Your task to perform on an android device: Open calendar and show me the third week of next month Image 0: 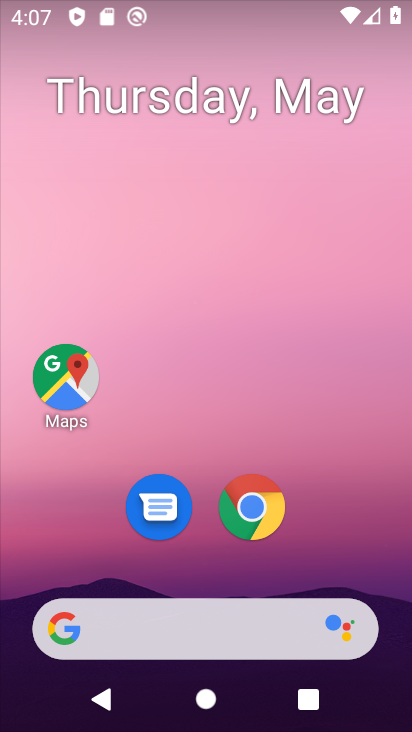
Step 0: drag from (330, 560) to (97, 9)
Your task to perform on an android device: Open calendar and show me the third week of next month Image 1: 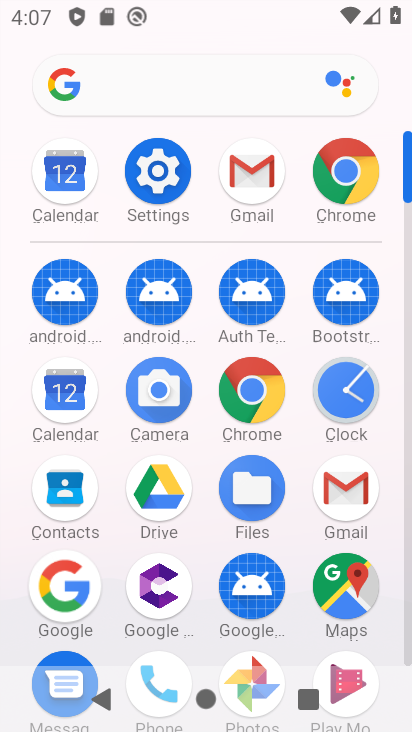
Step 1: click (60, 383)
Your task to perform on an android device: Open calendar and show me the third week of next month Image 2: 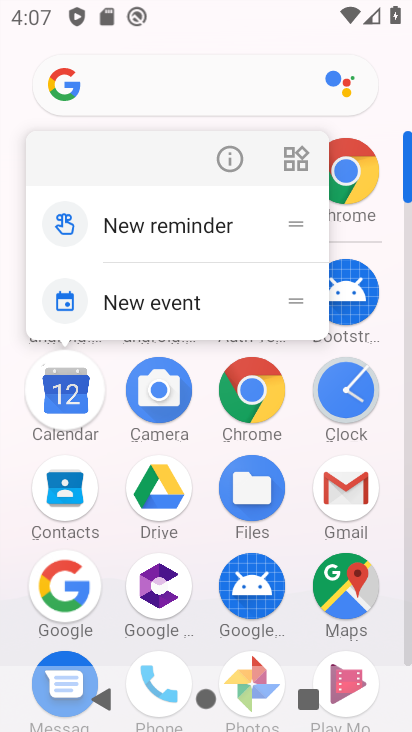
Step 2: click (62, 379)
Your task to perform on an android device: Open calendar and show me the third week of next month Image 3: 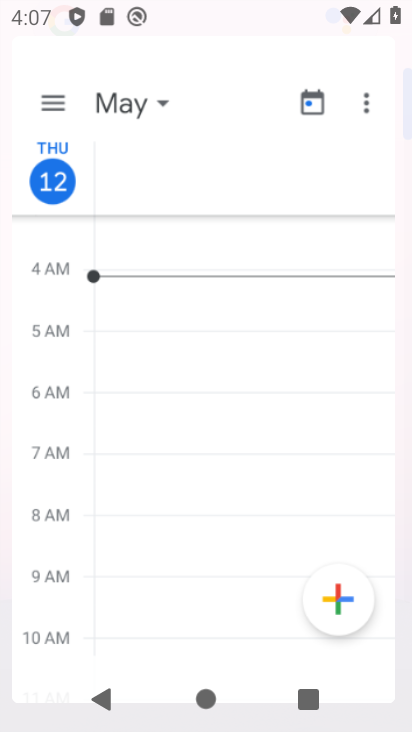
Step 3: click (60, 375)
Your task to perform on an android device: Open calendar and show me the third week of next month Image 4: 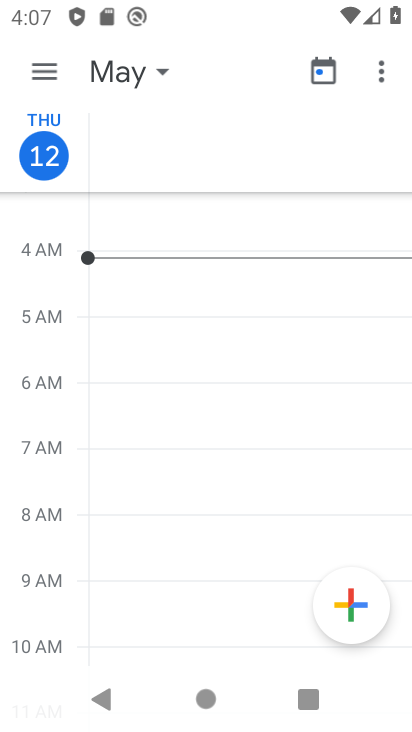
Step 4: click (159, 70)
Your task to perform on an android device: Open calendar and show me the third week of next month Image 5: 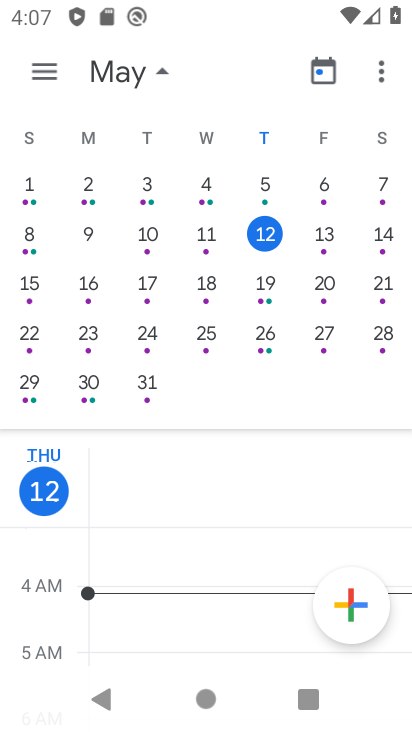
Step 5: drag from (256, 236) to (6, 318)
Your task to perform on an android device: Open calendar and show me the third week of next month Image 6: 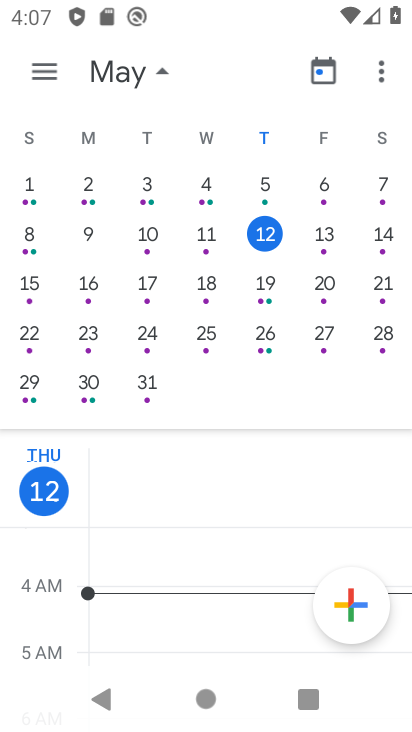
Step 6: drag from (258, 256) to (1, 350)
Your task to perform on an android device: Open calendar and show me the third week of next month Image 7: 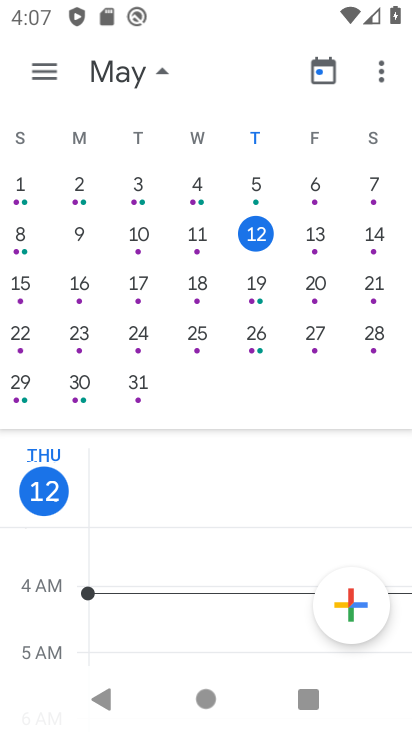
Step 7: drag from (251, 256) to (17, 259)
Your task to perform on an android device: Open calendar and show me the third week of next month Image 8: 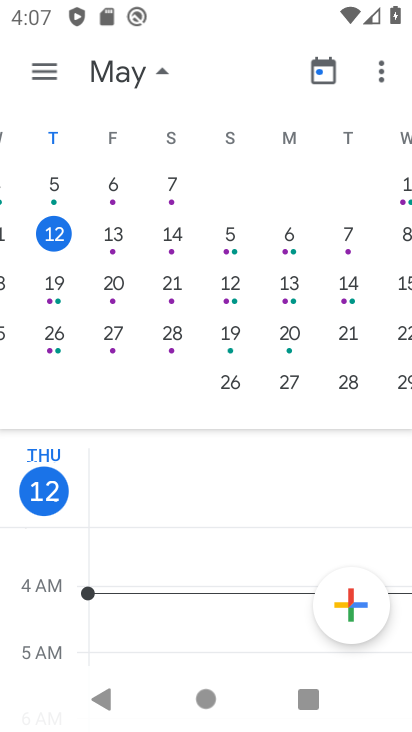
Step 8: drag from (209, 206) to (14, 277)
Your task to perform on an android device: Open calendar and show me the third week of next month Image 9: 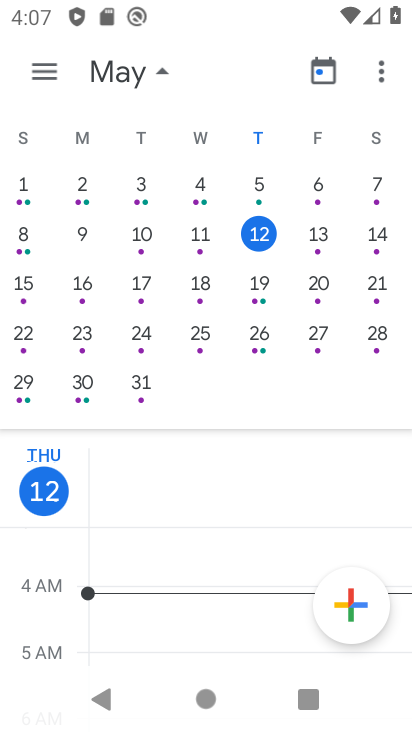
Step 9: drag from (262, 272) to (59, 259)
Your task to perform on an android device: Open calendar and show me the third week of next month Image 10: 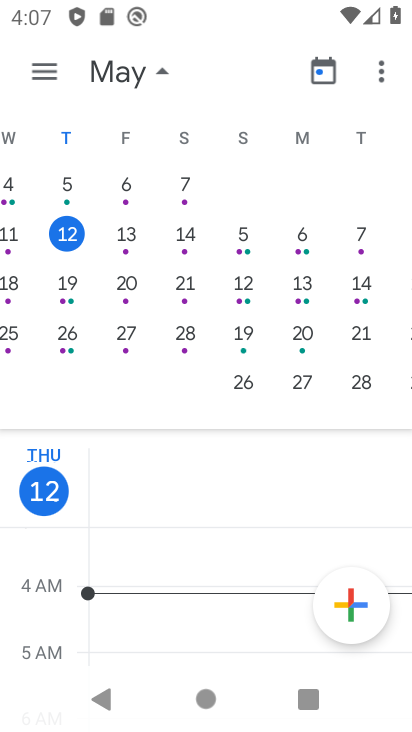
Step 10: drag from (290, 257) to (32, 266)
Your task to perform on an android device: Open calendar and show me the third week of next month Image 11: 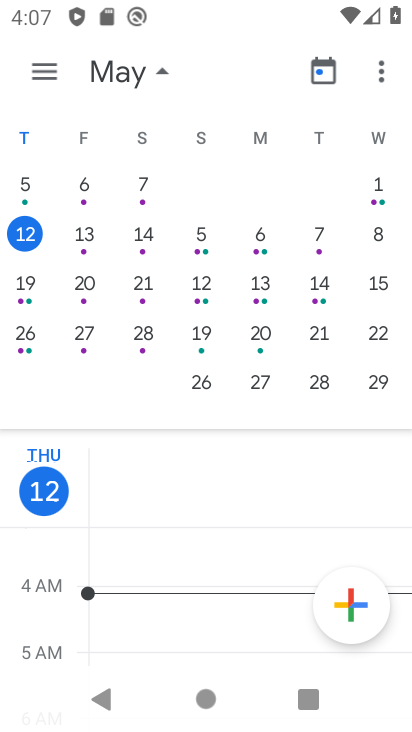
Step 11: drag from (219, 275) to (3, 125)
Your task to perform on an android device: Open calendar and show me the third week of next month Image 12: 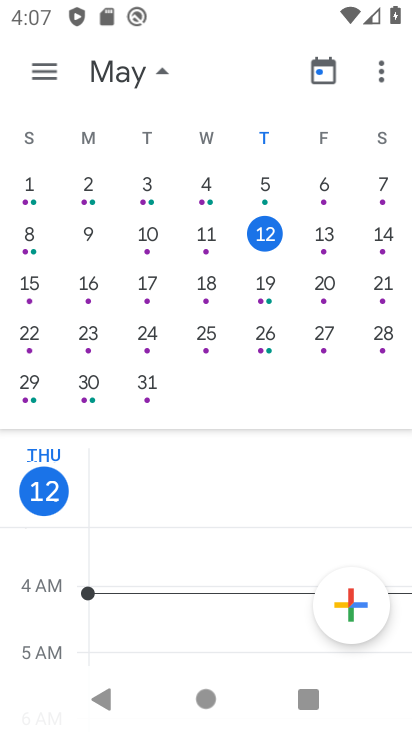
Step 12: drag from (265, 204) to (12, 268)
Your task to perform on an android device: Open calendar and show me the third week of next month Image 13: 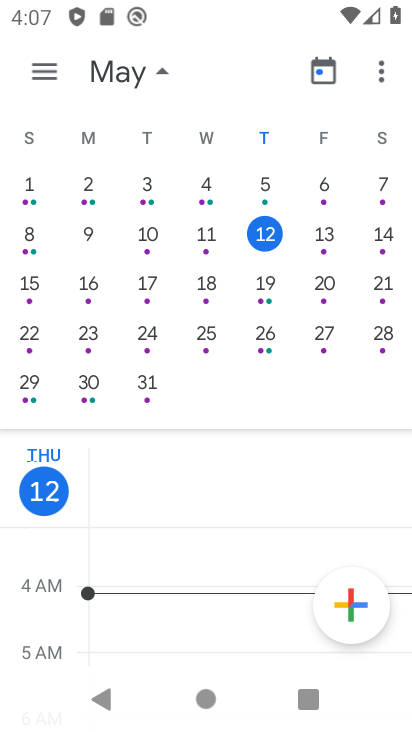
Step 13: drag from (346, 229) to (67, 290)
Your task to perform on an android device: Open calendar and show me the third week of next month Image 14: 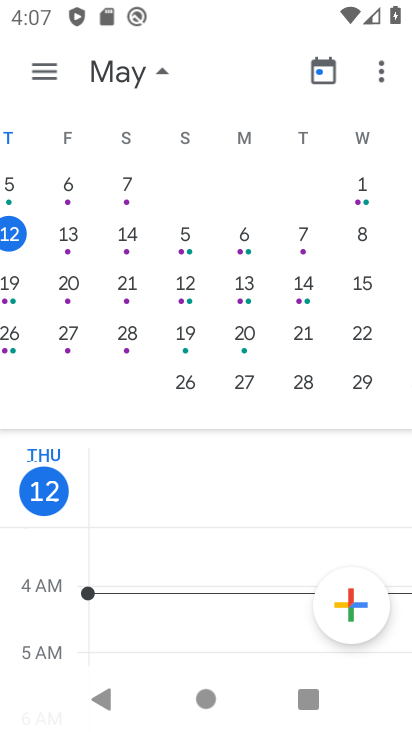
Step 14: drag from (162, 274) to (12, 264)
Your task to perform on an android device: Open calendar and show me the third week of next month Image 15: 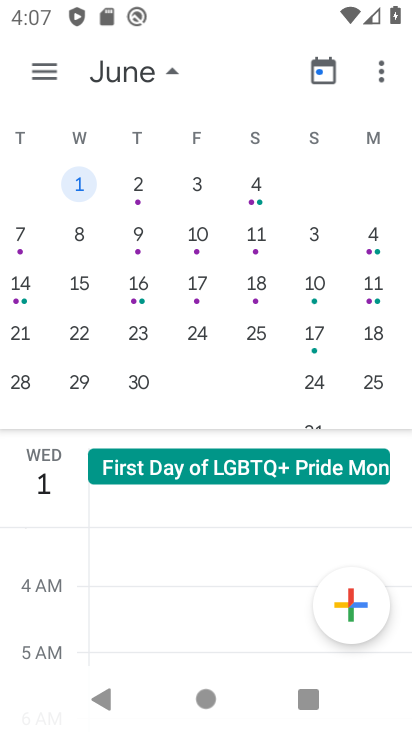
Step 15: drag from (143, 243) to (58, 256)
Your task to perform on an android device: Open calendar and show me the third week of next month Image 16: 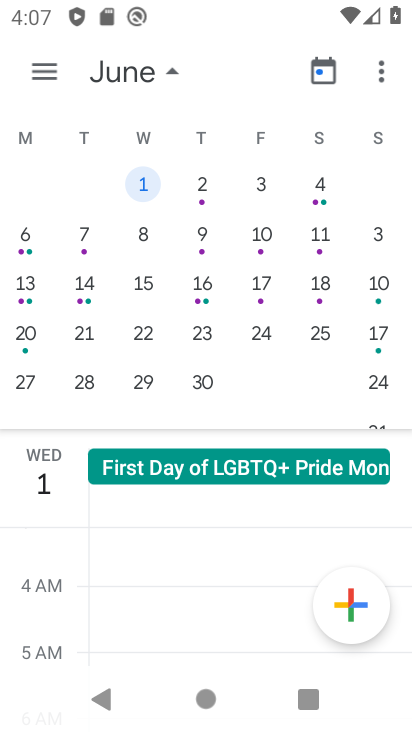
Step 16: drag from (255, 255) to (16, 231)
Your task to perform on an android device: Open calendar and show me the third week of next month Image 17: 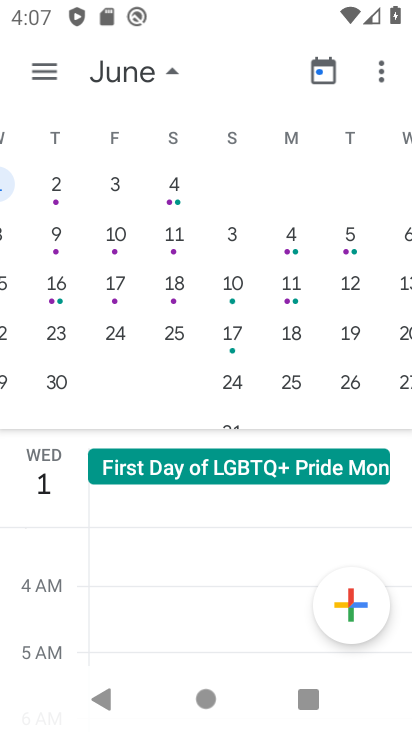
Step 17: drag from (318, 233) to (24, 233)
Your task to perform on an android device: Open calendar and show me the third week of next month Image 18: 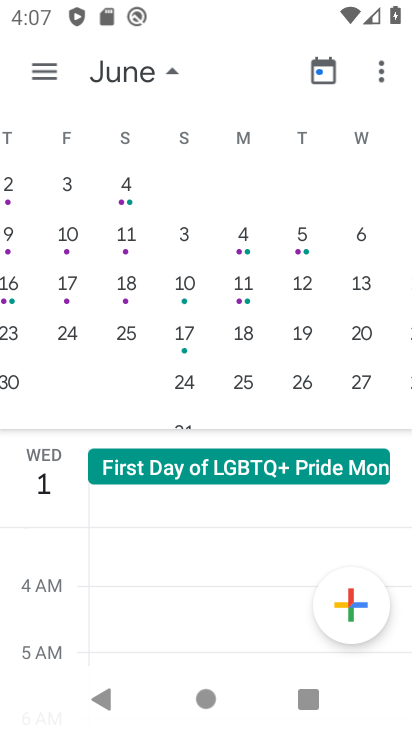
Step 18: drag from (79, 276) to (62, 240)
Your task to perform on an android device: Open calendar and show me the third week of next month Image 19: 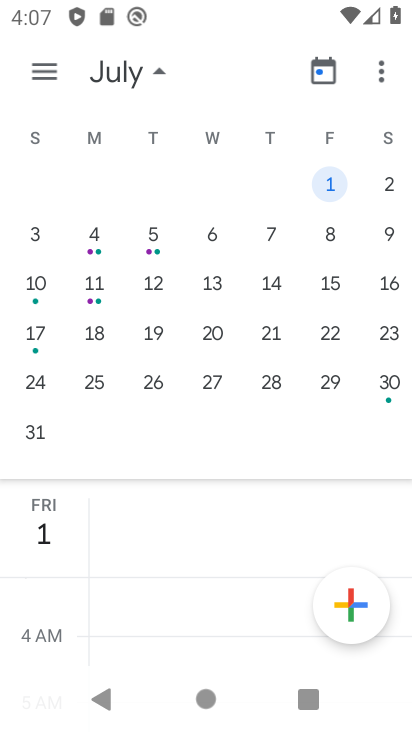
Step 19: drag from (182, 235) to (14, 274)
Your task to perform on an android device: Open calendar and show me the third week of next month Image 20: 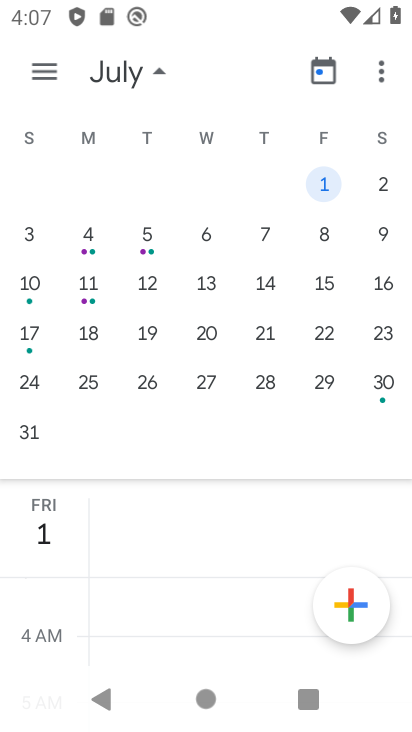
Step 20: drag from (127, 274) to (409, 269)
Your task to perform on an android device: Open calendar and show me the third week of next month Image 21: 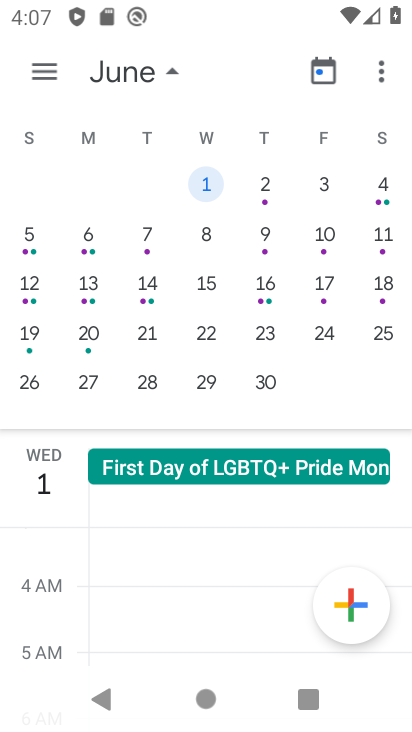
Step 21: click (204, 277)
Your task to perform on an android device: Open calendar and show me the third week of next month Image 22: 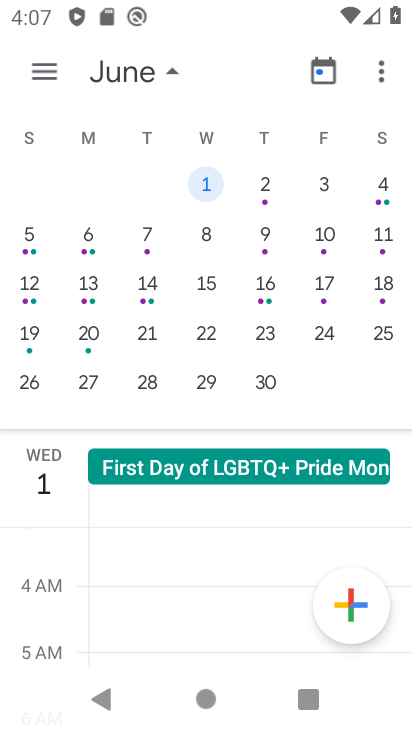
Step 22: click (203, 278)
Your task to perform on an android device: Open calendar and show me the third week of next month Image 23: 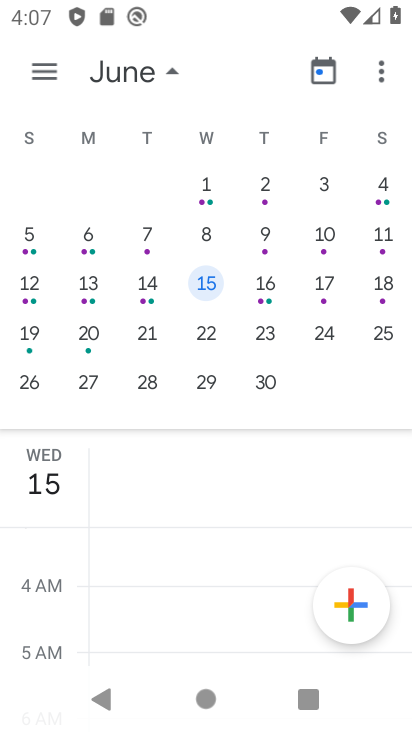
Step 23: click (200, 276)
Your task to perform on an android device: Open calendar and show me the third week of next month Image 24: 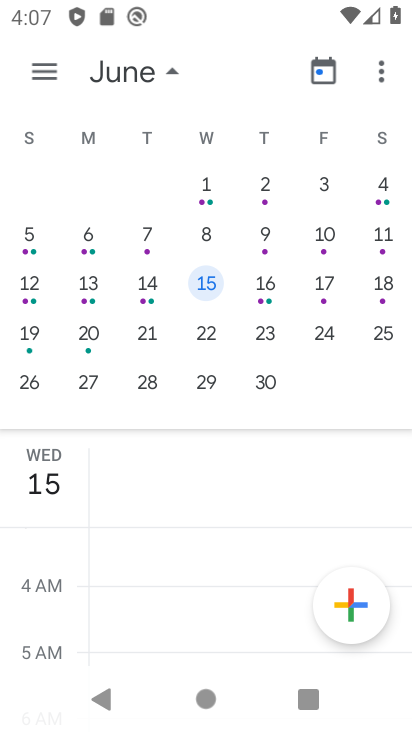
Step 24: click (200, 276)
Your task to perform on an android device: Open calendar and show me the third week of next month Image 25: 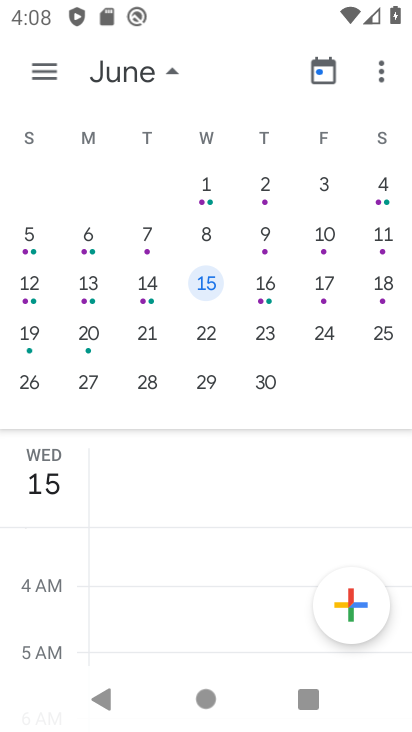
Step 25: task complete